Your task to perform on an android device: Go to Reddit.com Image 0: 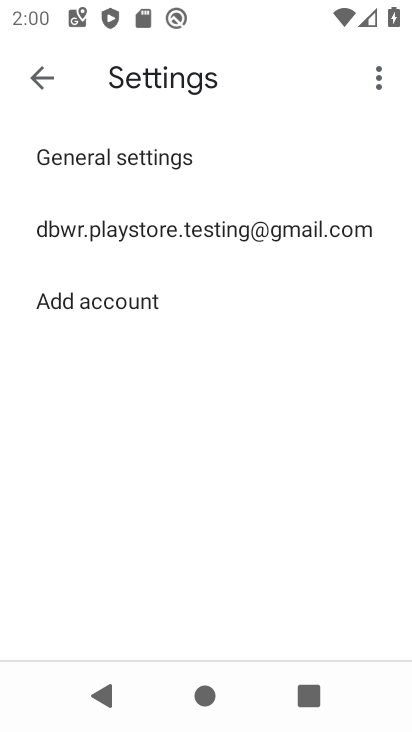
Step 0: press home button
Your task to perform on an android device: Go to Reddit.com Image 1: 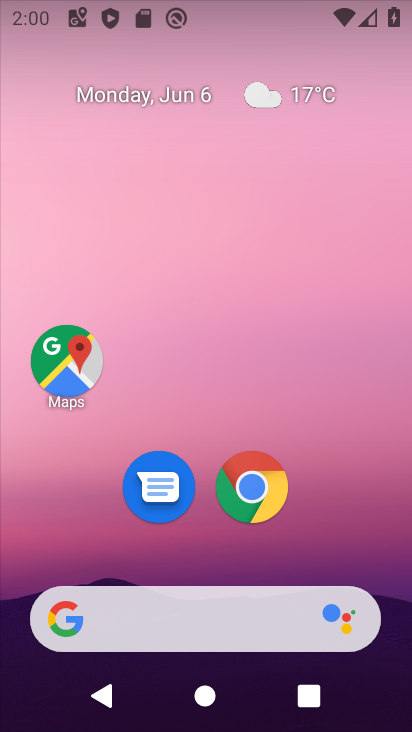
Step 1: click (204, 620)
Your task to perform on an android device: Go to Reddit.com Image 2: 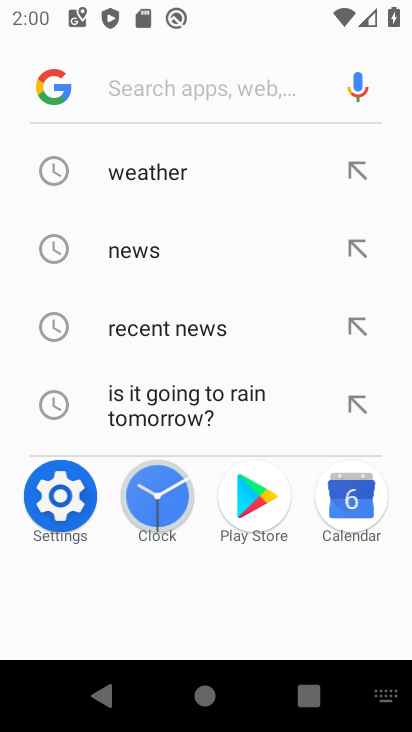
Step 2: type "Reddit.com"
Your task to perform on an android device: Go to Reddit.com Image 3: 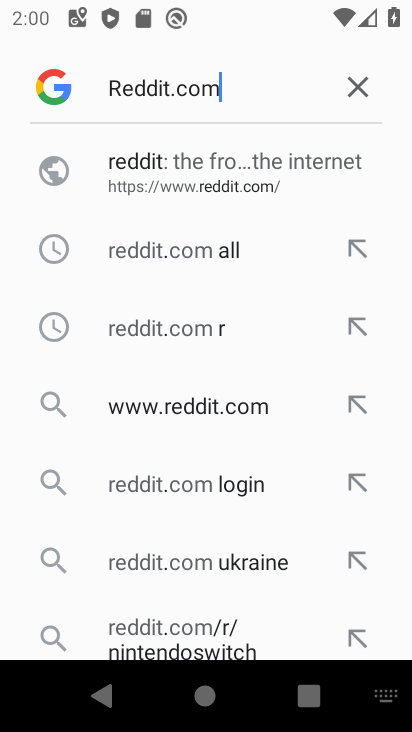
Step 3: click (195, 173)
Your task to perform on an android device: Go to Reddit.com Image 4: 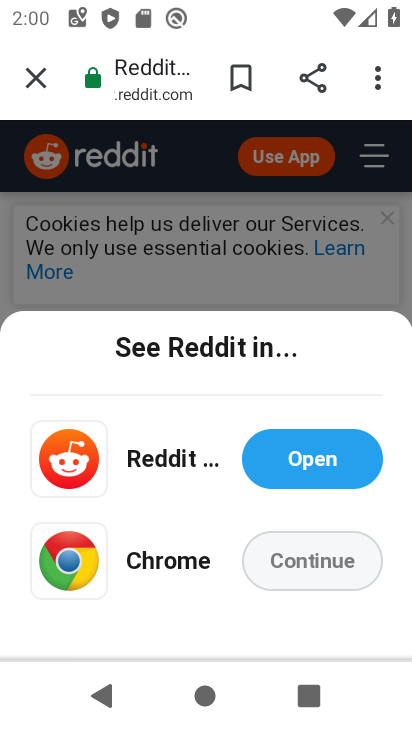
Step 4: click (305, 555)
Your task to perform on an android device: Go to Reddit.com Image 5: 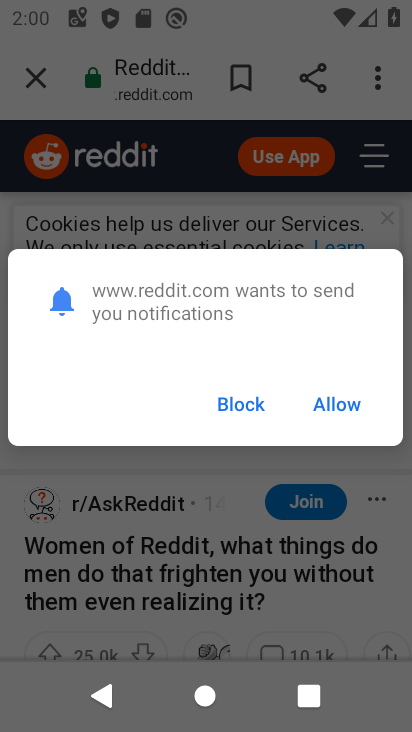
Step 5: click (347, 401)
Your task to perform on an android device: Go to Reddit.com Image 6: 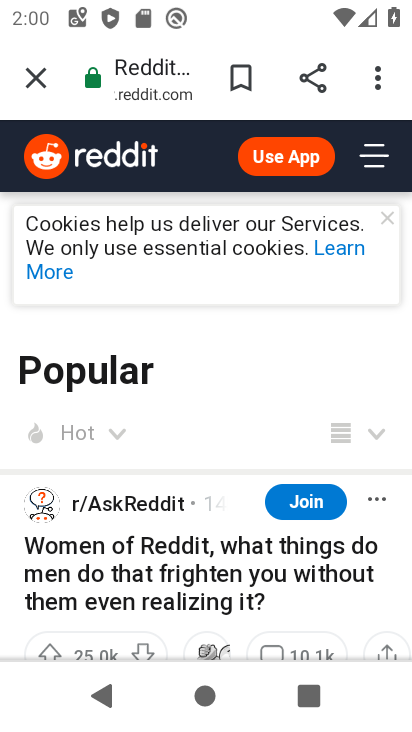
Step 6: task complete